Your task to perform on an android device: Search for pizza restaurants on Maps Image 0: 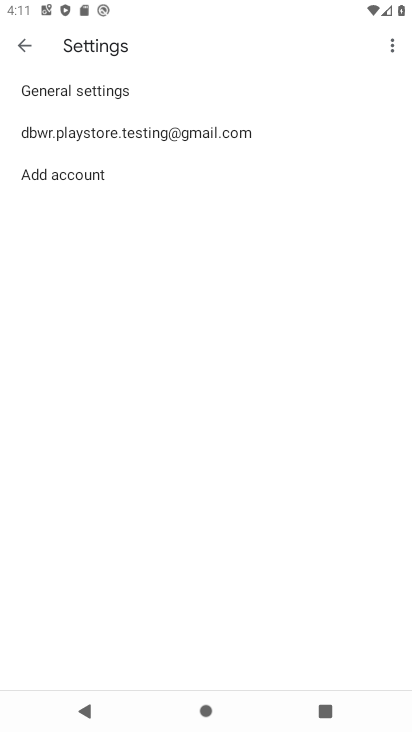
Step 0: press back button
Your task to perform on an android device: Search for pizza restaurants on Maps Image 1: 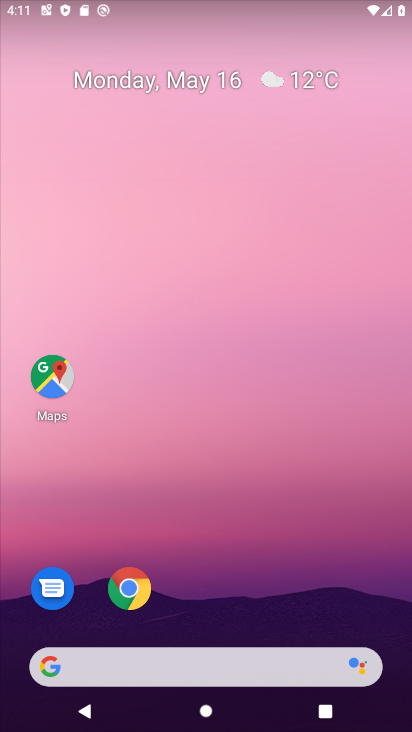
Step 1: click (42, 362)
Your task to perform on an android device: Search for pizza restaurants on Maps Image 2: 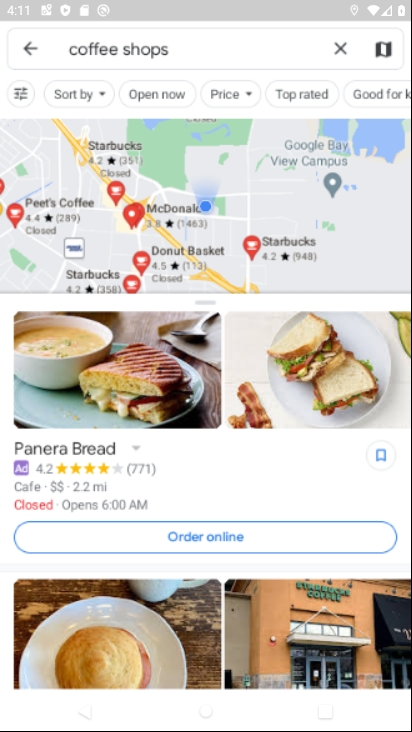
Step 2: click (337, 46)
Your task to perform on an android device: Search for pizza restaurants on Maps Image 3: 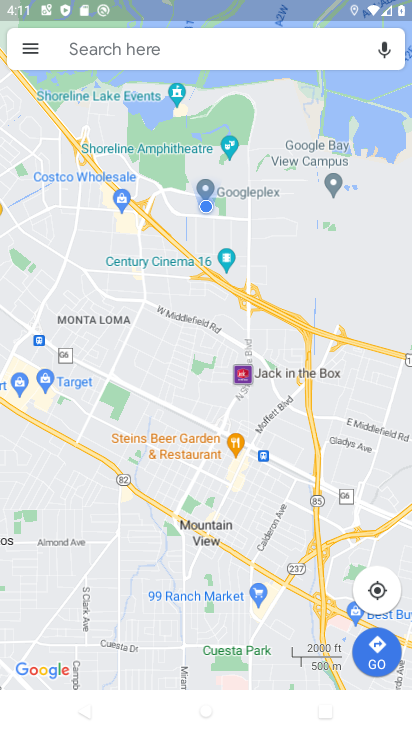
Step 3: click (164, 51)
Your task to perform on an android device: Search for pizza restaurants on Maps Image 4: 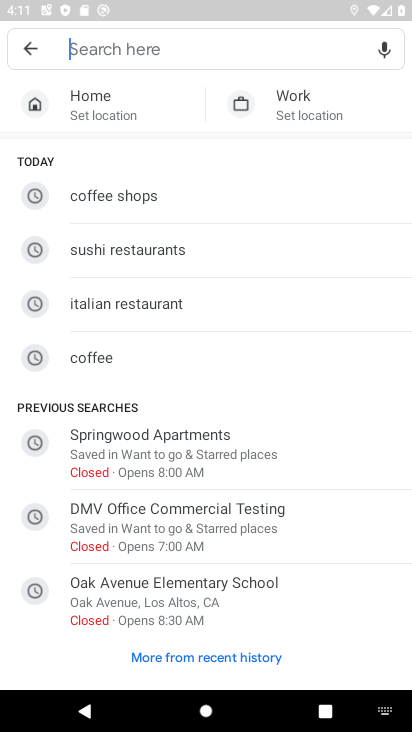
Step 4: type "pizza restaurants"
Your task to perform on an android device: Search for pizza restaurants on Maps Image 5: 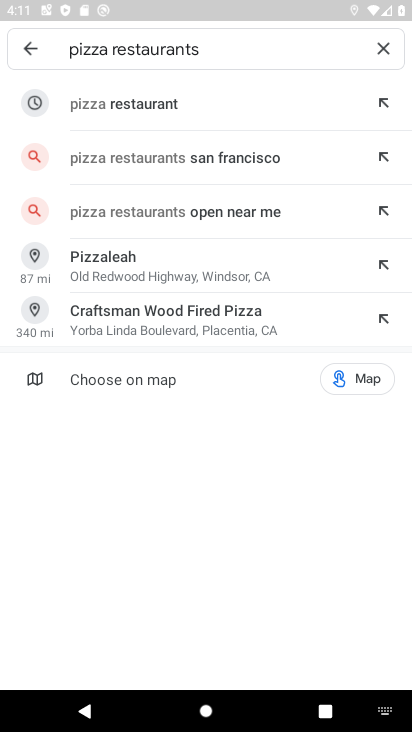
Step 5: click (143, 100)
Your task to perform on an android device: Search for pizza restaurants on Maps Image 6: 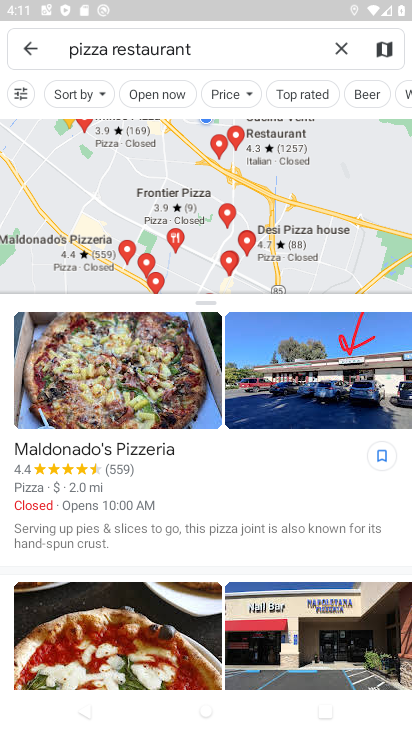
Step 6: task complete